Your task to perform on an android device: turn off smart reply in the gmail app Image 0: 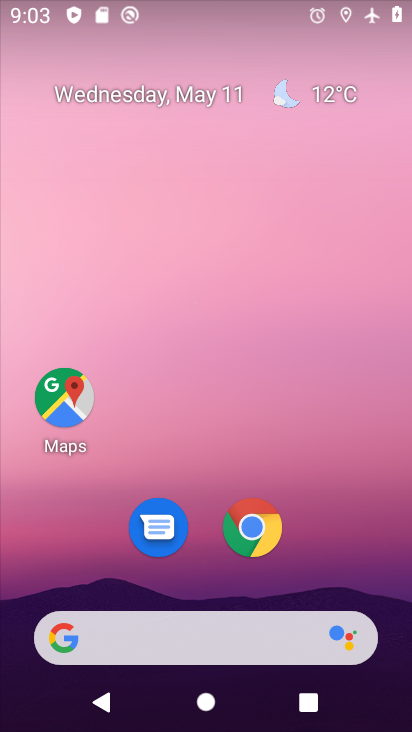
Step 0: drag from (362, 533) to (366, 99)
Your task to perform on an android device: turn off smart reply in the gmail app Image 1: 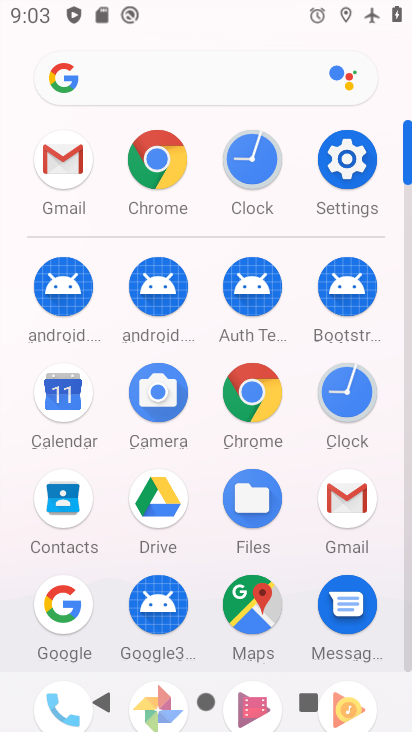
Step 1: click (42, 164)
Your task to perform on an android device: turn off smart reply in the gmail app Image 2: 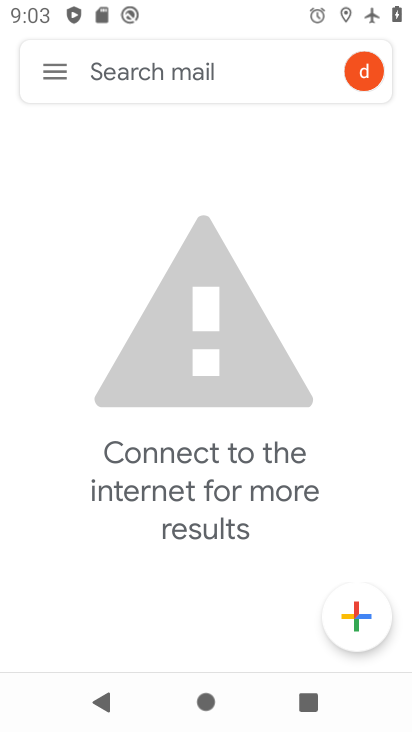
Step 2: click (65, 75)
Your task to perform on an android device: turn off smart reply in the gmail app Image 3: 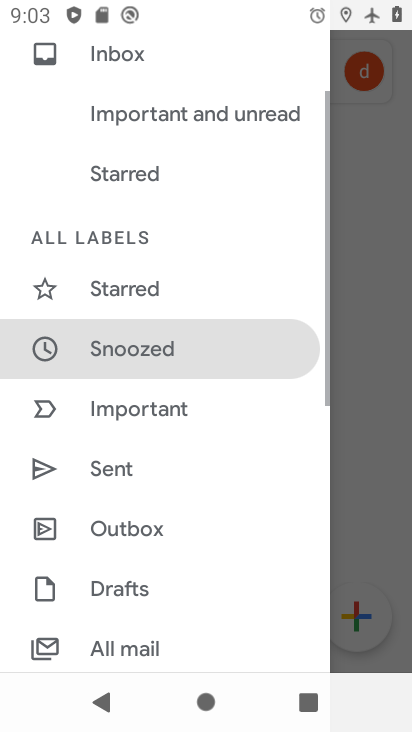
Step 3: drag from (106, 613) to (300, 159)
Your task to perform on an android device: turn off smart reply in the gmail app Image 4: 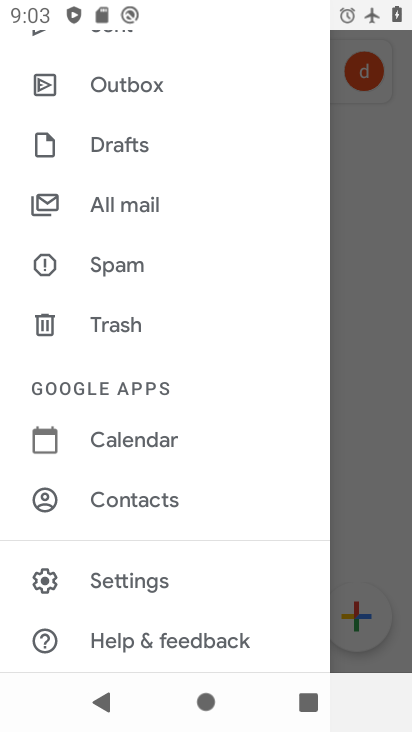
Step 4: click (174, 594)
Your task to perform on an android device: turn off smart reply in the gmail app Image 5: 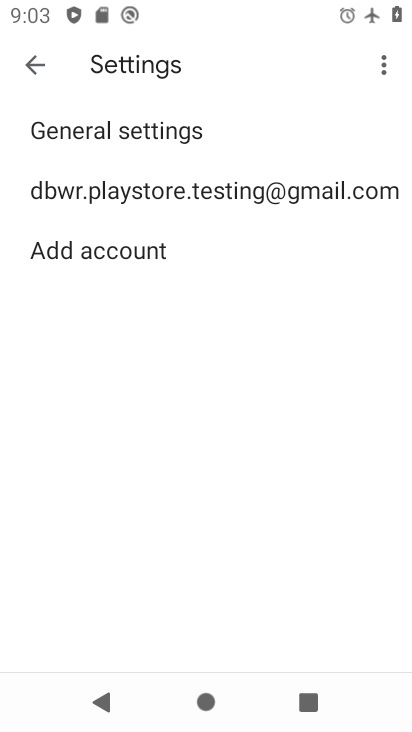
Step 5: click (326, 201)
Your task to perform on an android device: turn off smart reply in the gmail app Image 6: 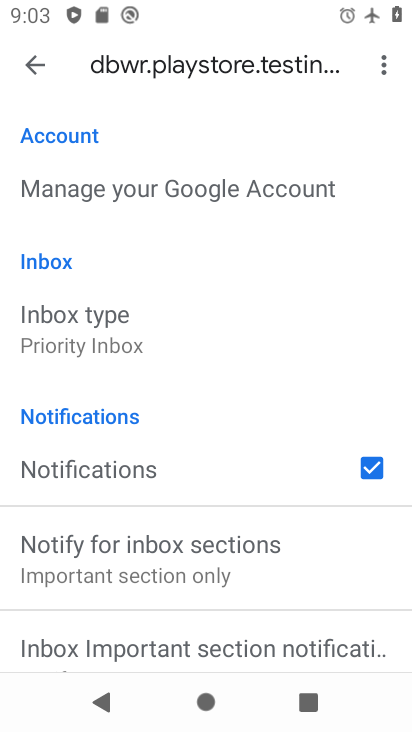
Step 6: drag from (193, 637) to (292, 249)
Your task to perform on an android device: turn off smart reply in the gmail app Image 7: 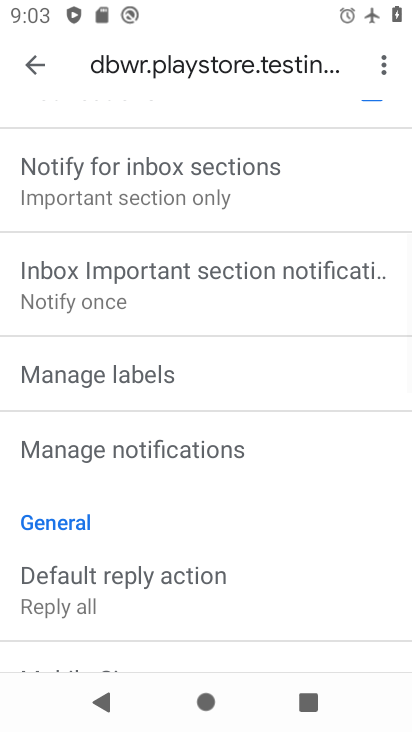
Step 7: drag from (206, 593) to (308, 281)
Your task to perform on an android device: turn off smart reply in the gmail app Image 8: 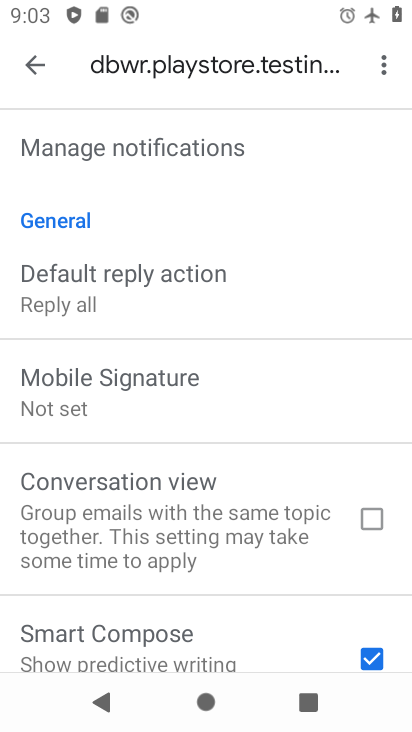
Step 8: drag from (262, 564) to (327, 297)
Your task to perform on an android device: turn off smart reply in the gmail app Image 9: 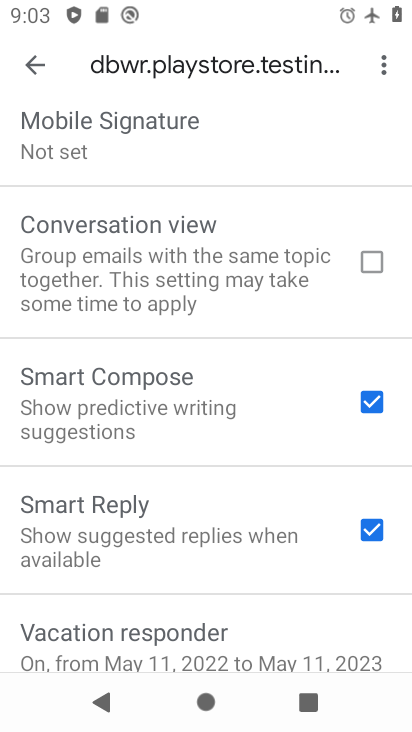
Step 9: click (372, 525)
Your task to perform on an android device: turn off smart reply in the gmail app Image 10: 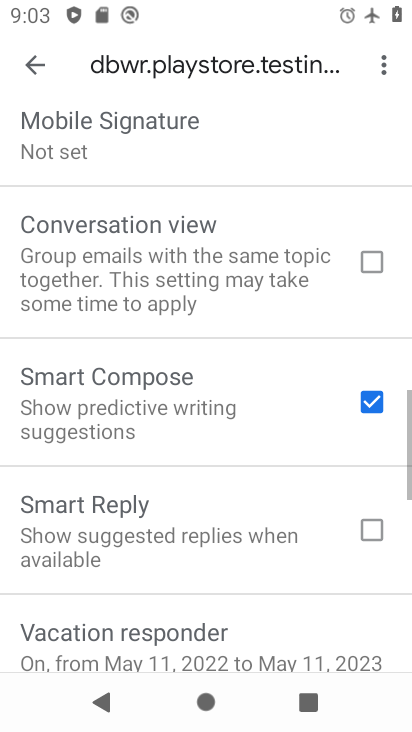
Step 10: task complete